Your task to perform on an android device: Go to ESPN.com Image 0: 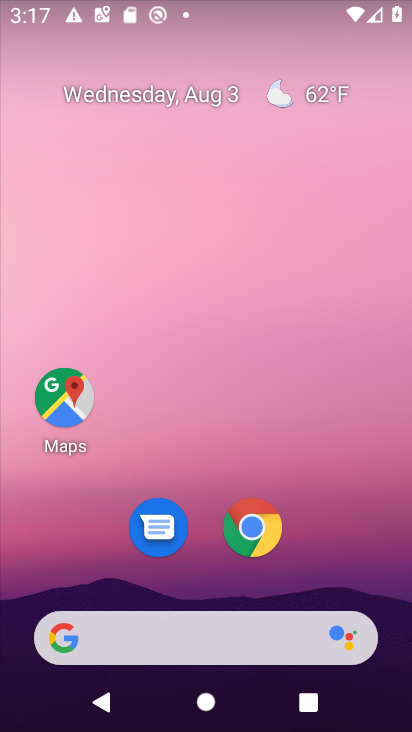
Step 0: drag from (365, 552) to (225, 135)
Your task to perform on an android device: Go to ESPN.com Image 1: 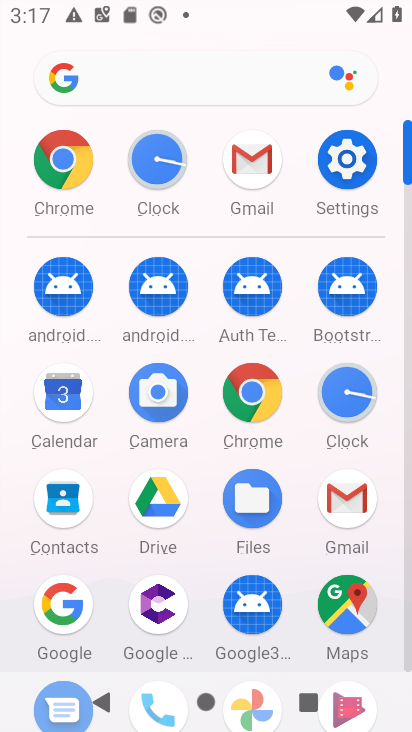
Step 1: click (246, 388)
Your task to perform on an android device: Go to ESPN.com Image 2: 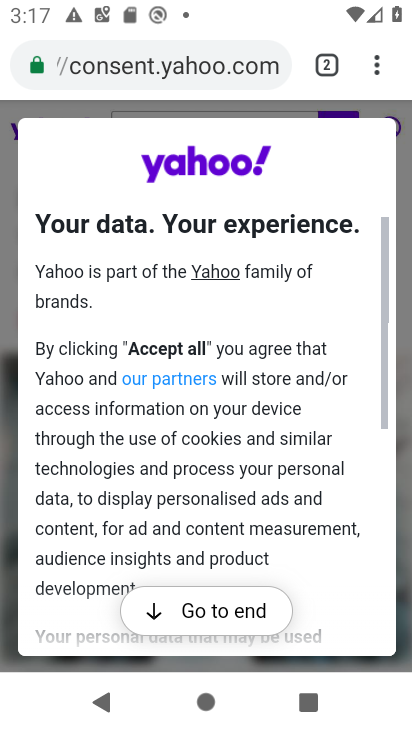
Step 2: click (193, 68)
Your task to perform on an android device: Go to ESPN.com Image 3: 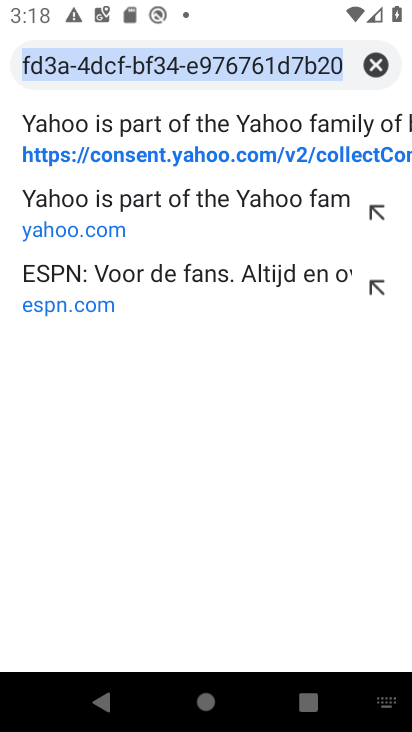
Step 3: click (44, 304)
Your task to perform on an android device: Go to ESPN.com Image 4: 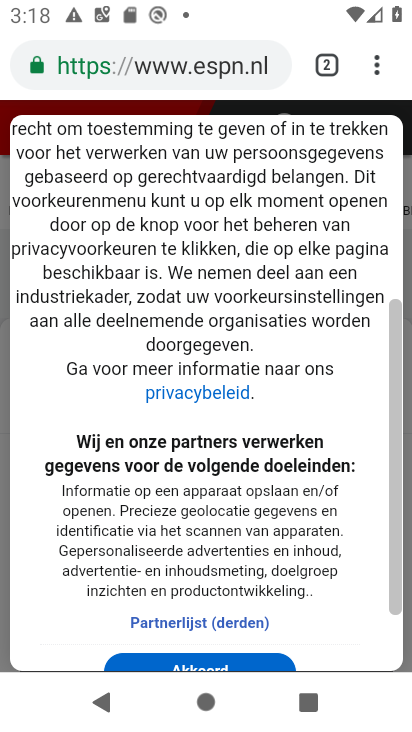
Step 4: task complete